Your task to perform on an android device: What's on my calendar tomorrow? Image 0: 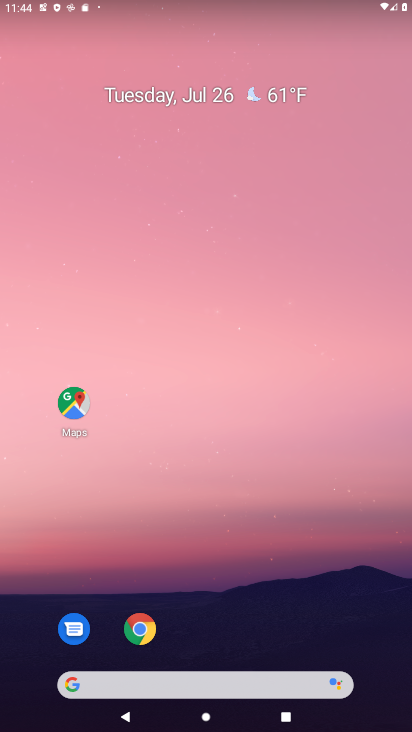
Step 0: drag from (220, 653) to (232, 256)
Your task to perform on an android device: What's on my calendar tomorrow? Image 1: 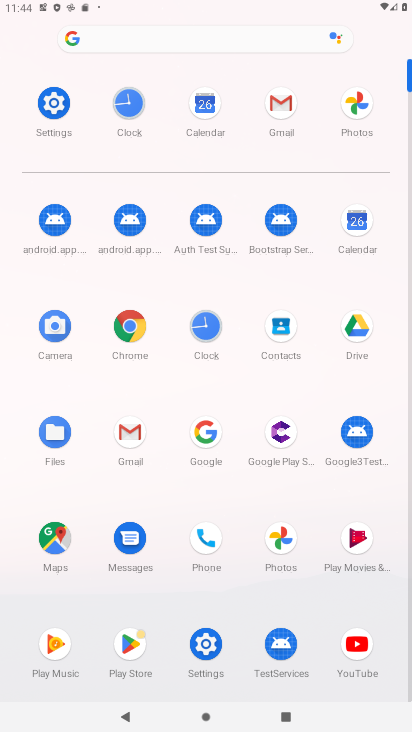
Step 1: click (223, 119)
Your task to perform on an android device: What's on my calendar tomorrow? Image 2: 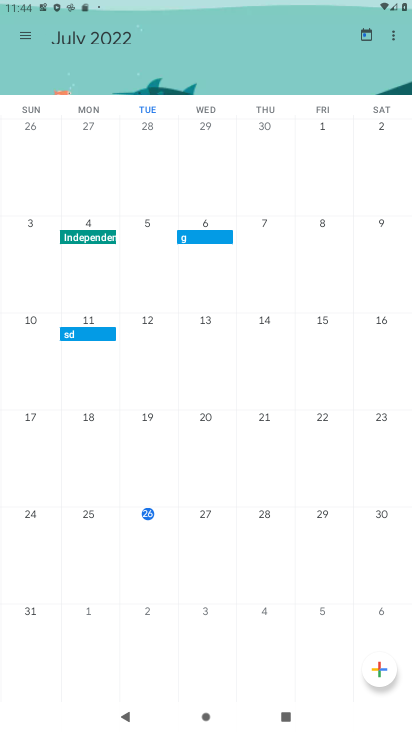
Step 2: task complete